Your task to perform on an android device: Open Yahoo.com Image 0: 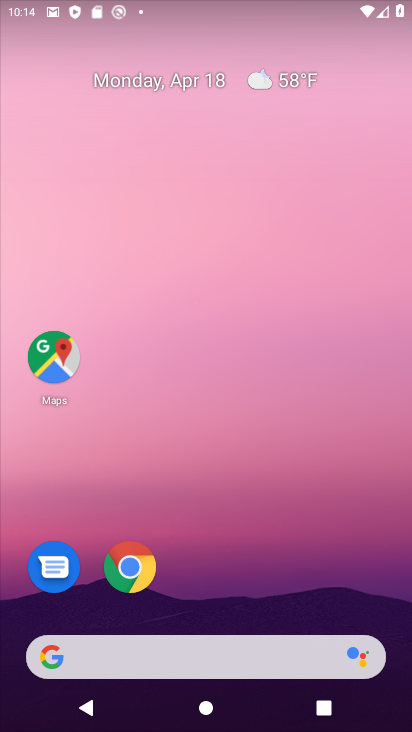
Step 0: drag from (209, 716) to (177, 88)
Your task to perform on an android device: Open Yahoo.com Image 1: 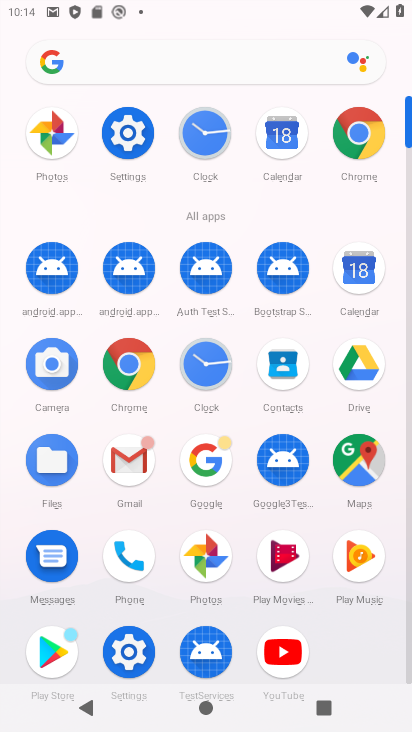
Step 1: click (357, 138)
Your task to perform on an android device: Open Yahoo.com Image 2: 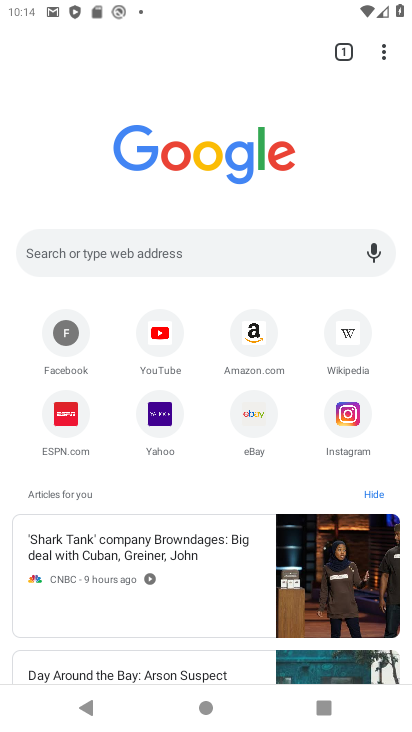
Step 2: click (160, 413)
Your task to perform on an android device: Open Yahoo.com Image 3: 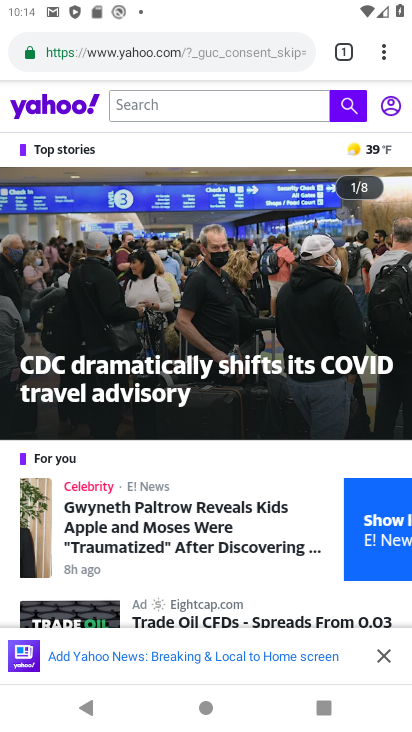
Step 3: task complete